Your task to perform on an android device: change the clock display to analog Image 0: 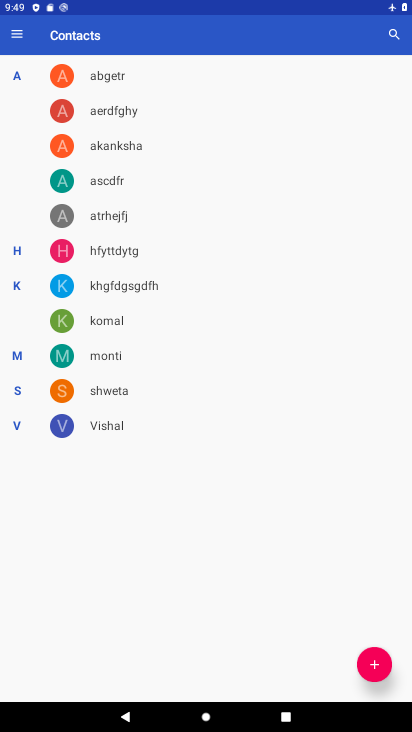
Step 0: press home button
Your task to perform on an android device: change the clock display to analog Image 1: 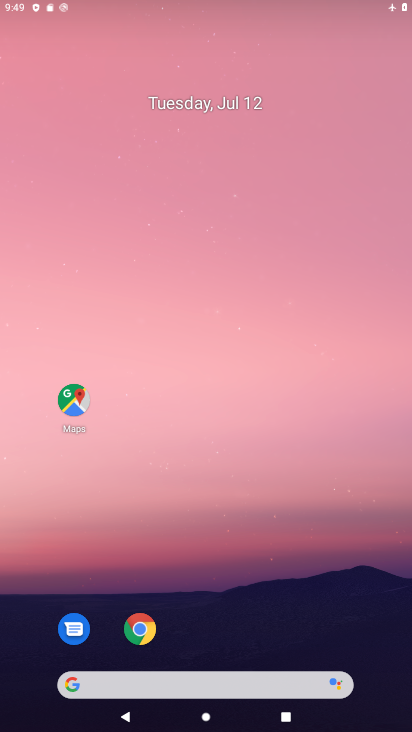
Step 1: drag from (286, 620) to (275, 166)
Your task to perform on an android device: change the clock display to analog Image 2: 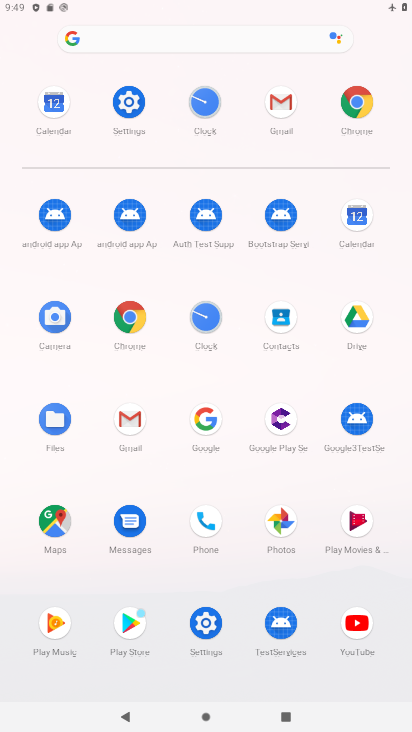
Step 2: click (207, 99)
Your task to perform on an android device: change the clock display to analog Image 3: 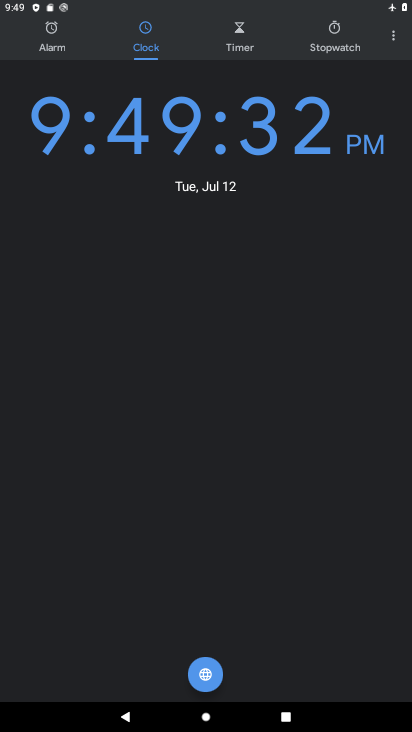
Step 3: click (391, 28)
Your task to perform on an android device: change the clock display to analog Image 4: 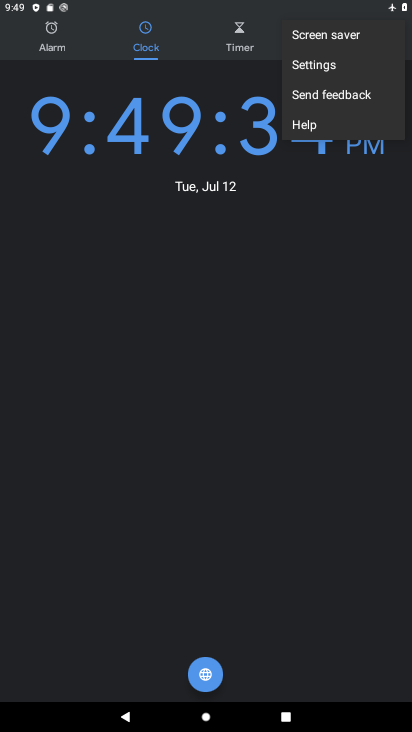
Step 4: click (329, 64)
Your task to perform on an android device: change the clock display to analog Image 5: 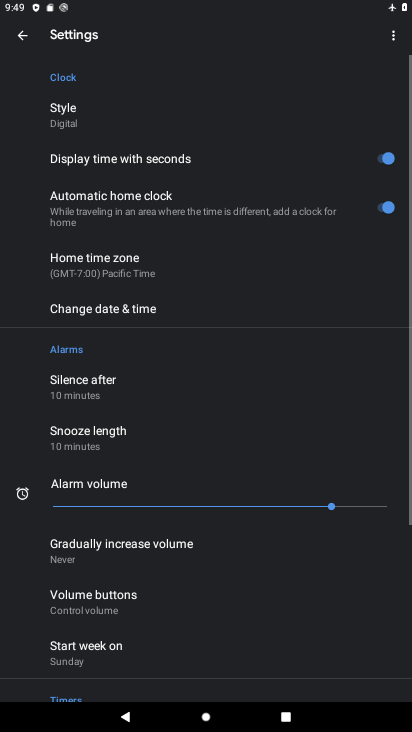
Step 5: click (95, 115)
Your task to perform on an android device: change the clock display to analog Image 6: 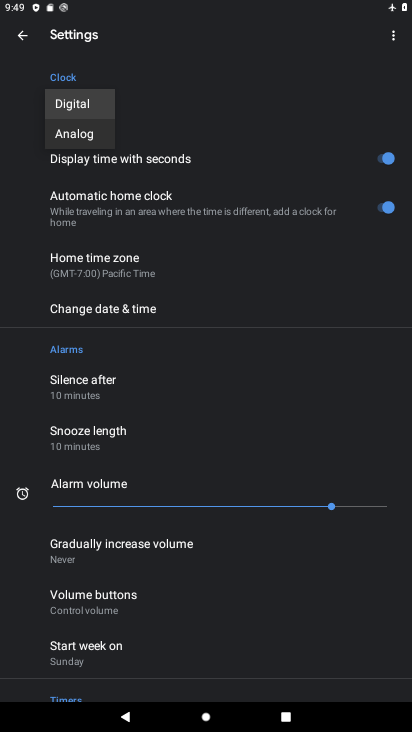
Step 6: click (72, 136)
Your task to perform on an android device: change the clock display to analog Image 7: 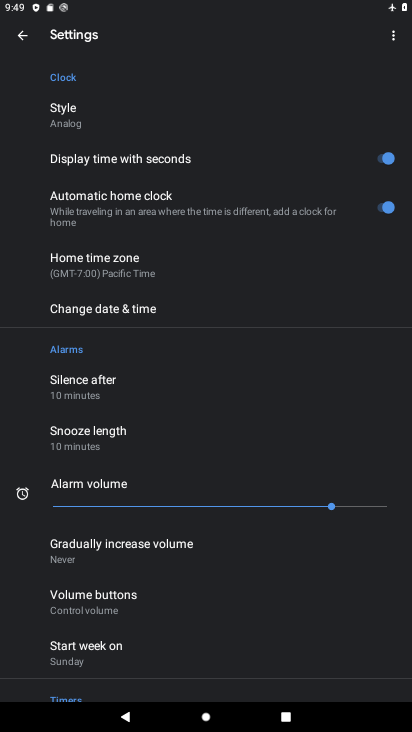
Step 7: task complete